Your task to perform on an android device: Go to Android settings Image 0: 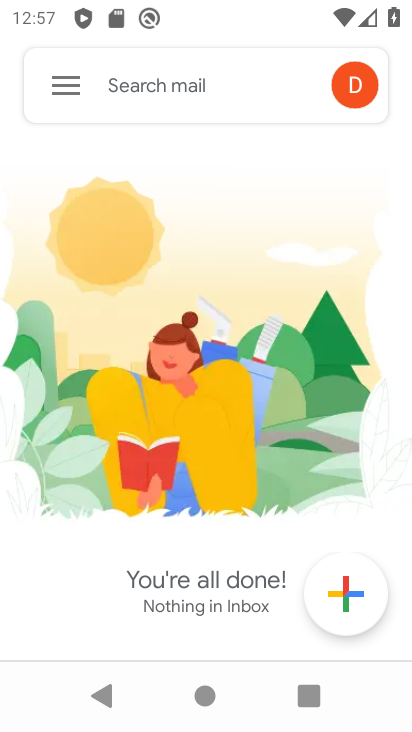
Step 0: press home button
Your task to perform on an android device: Go to Android settings Image 1: 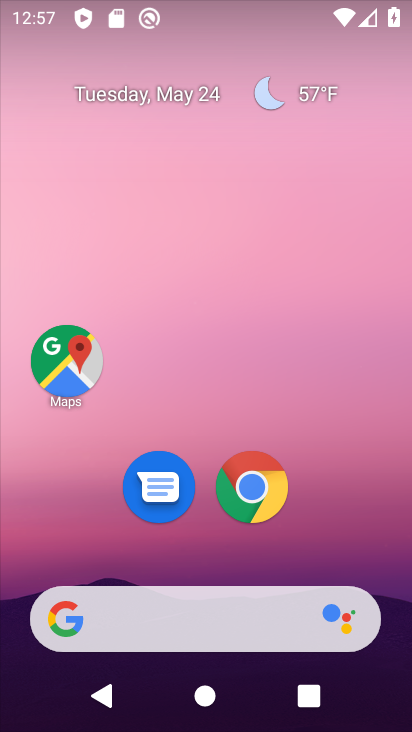
Step 1: drag from (219, 722) to (202, 119)
Your task to perform on an android device: Go to Android settings Image 2: 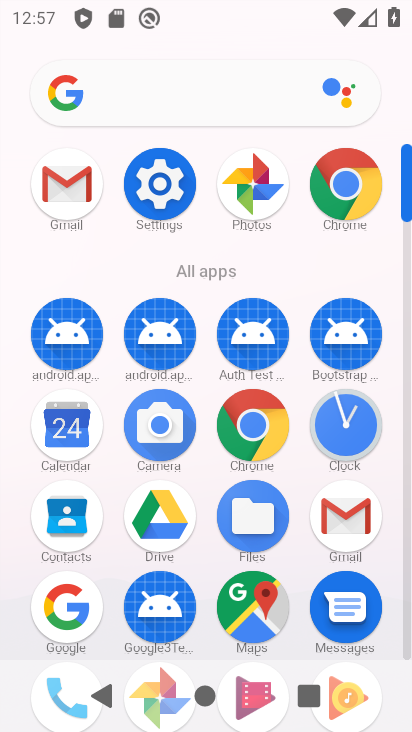
Step 2: click (169, 185)
Your task to perform on an android device: Go to Android settings Image 3: 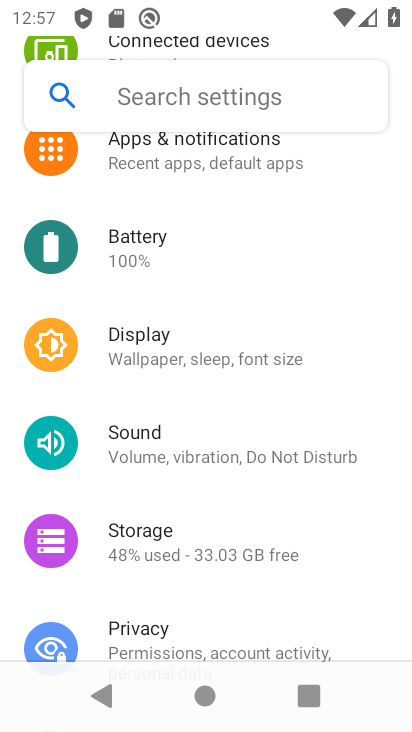
Step 3: task complete